Your task to perform on an android device: toggle sleep mode Image 0: 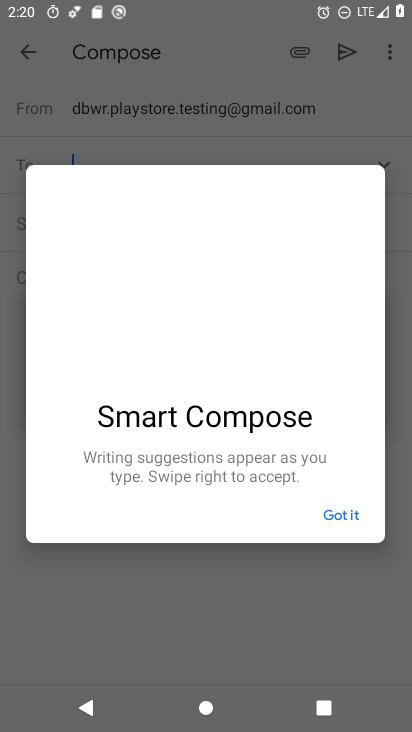
Step 0: press home button
Your task to perform on an android device: toggle sleep mode Image 1: 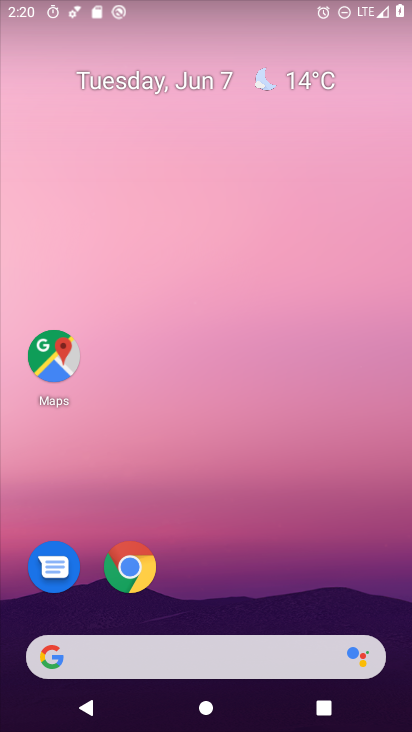
Step 1: drag from (299, 556) to (380, 100)
Your task to perform on an android device: toggle sleep mode Image 2: 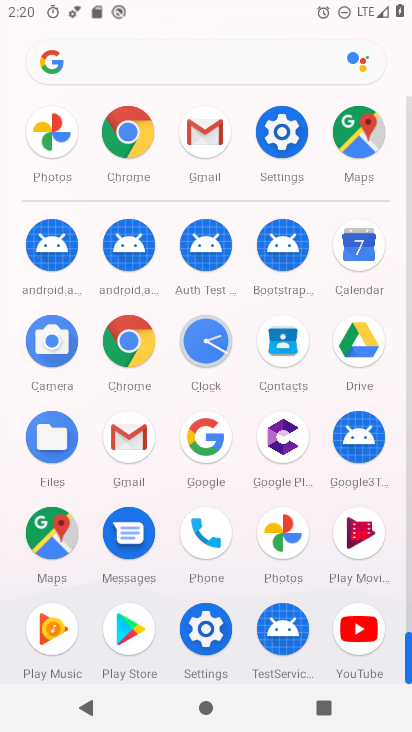
Step 2: click (283, 142)
Your task to perform on an android device: toggle sleep mode Image 3: 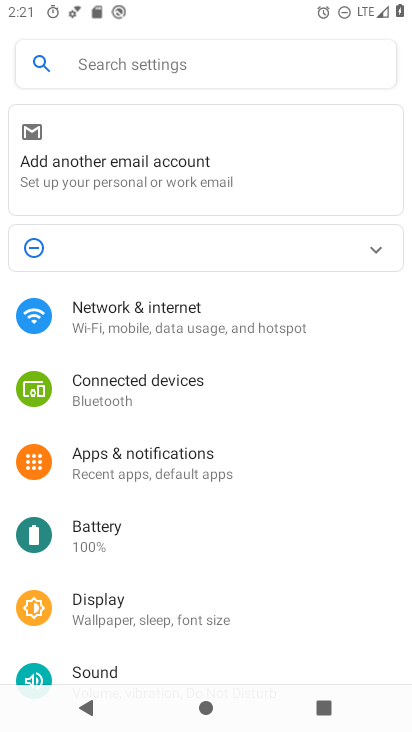
Step 3: drag from (127, 579) to (217, 179)
Your task to perform on an android device: toggle sleep mode Image 4: 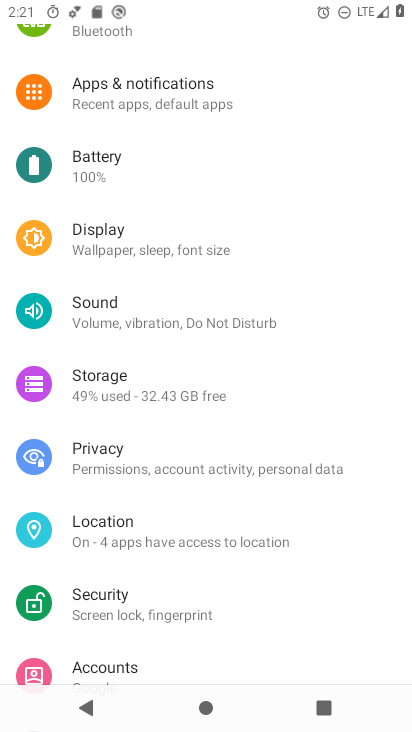
Step 4: click (109, 240)
Your task to perform on an android device: toggle sleep mode Image 5: 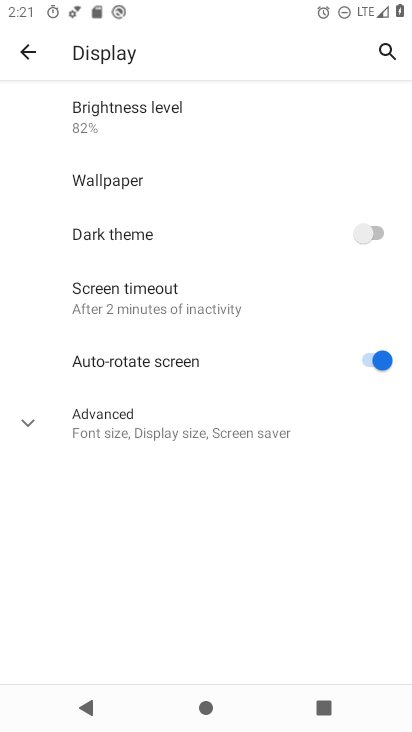
Step 5: click (143, 422)
Your task to perform on an android device: toggle sleep mode Image 6: 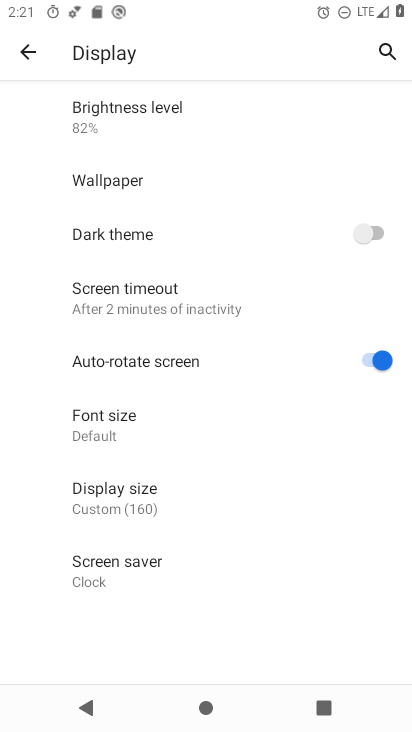
Step 6: click (147, 302)
Your task to perform on an android device: toggle sleep mode Image 7: 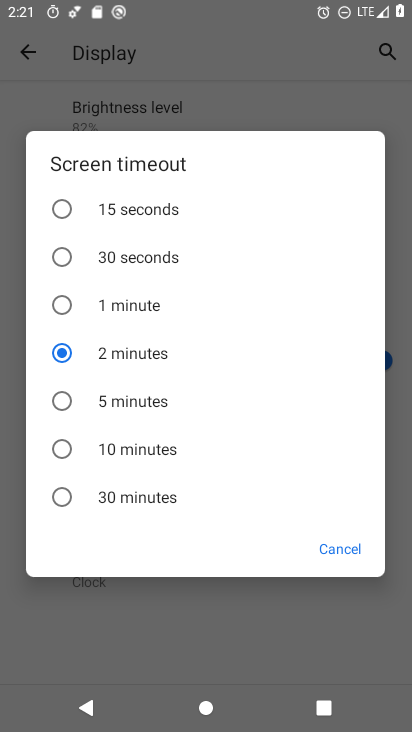
Step 7: click (132, 385)
Your task to perform on an android device: toggle sleep mode Image 8: 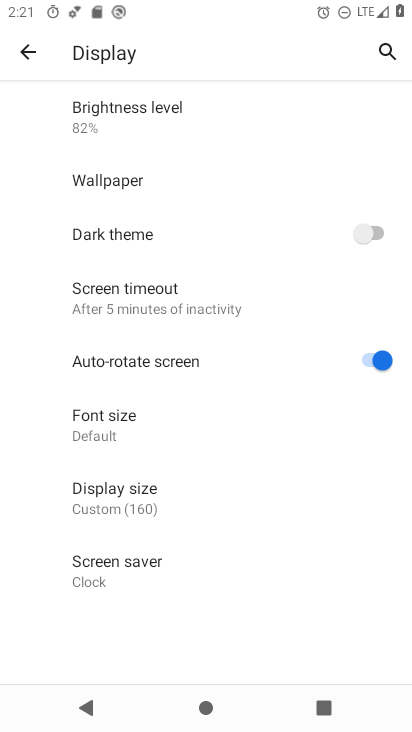
Step 8: task complete